Your task to perform on an android device: turn off priority inbox in the gmail app Image 0: 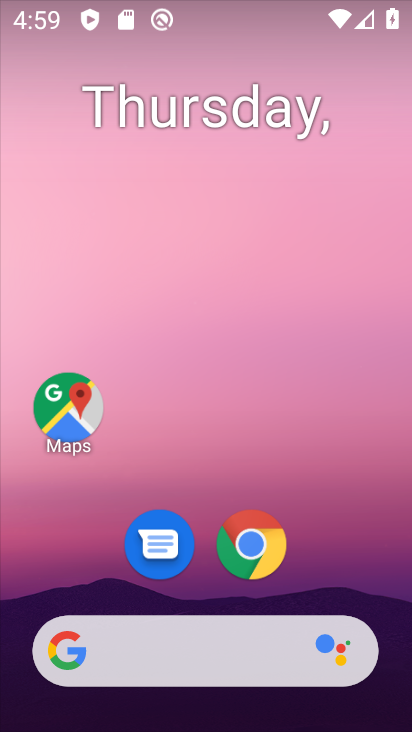
Step 0: drag from (342, 493) to (322, 78)
Your task to perform on an android device: turn off priority inbox in the gmail app Image 1: 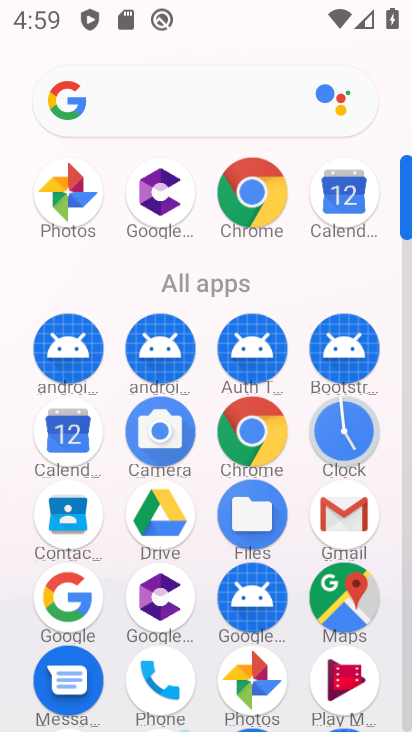
Step 1: click (345, 532)
Your task to perform on an android device: turn off priority inbox in the gmail app Image 2: 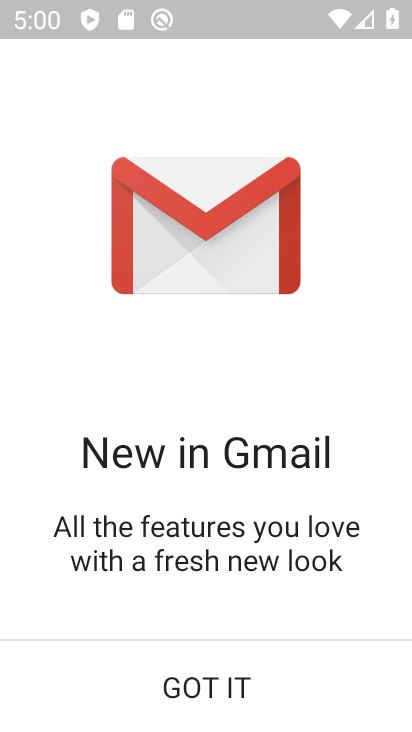
Step 2: click (230, 710)
Your task to perform on an android device: turn off priority inbox in the gmail app Image 3: 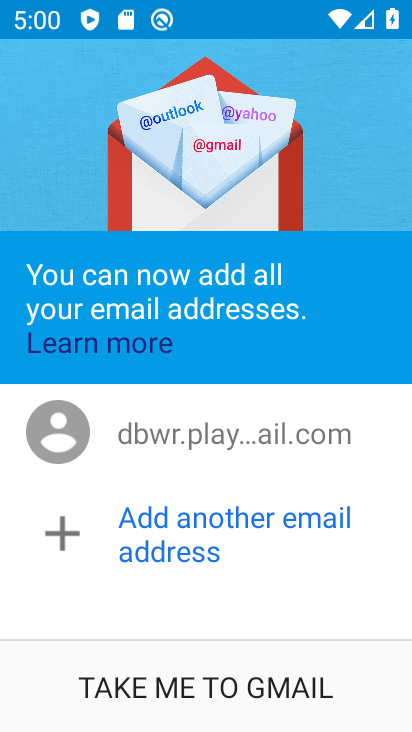
Step 3: click (224, 673)
Your task to perform on an android device: turn off priority inbox in the gmail app Image 4: 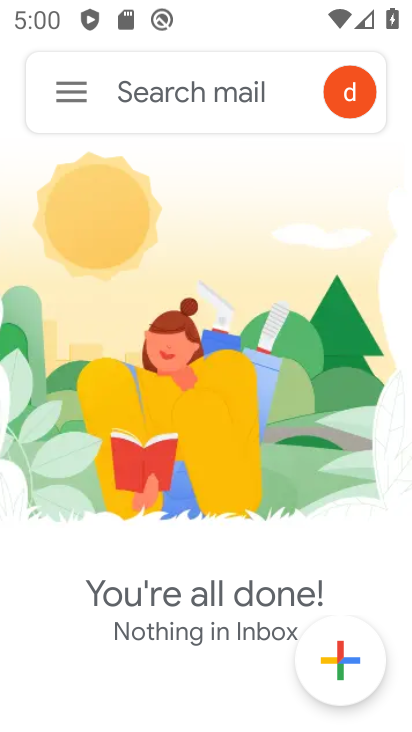
Step 4: click (61, 86)
Your task to perform on an android device: turn off priority inbox in the gmail app Image 5: 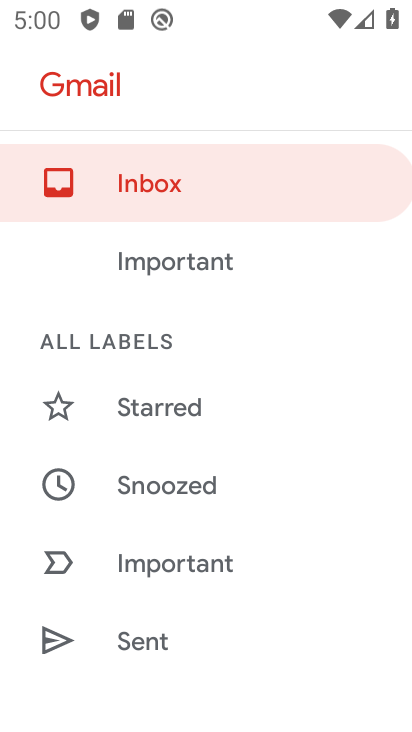
Step 5: drag from (241, 625) to (290, 28)
Your task to perform on an android device: turn off priority inbox in the gmail app Image 6: 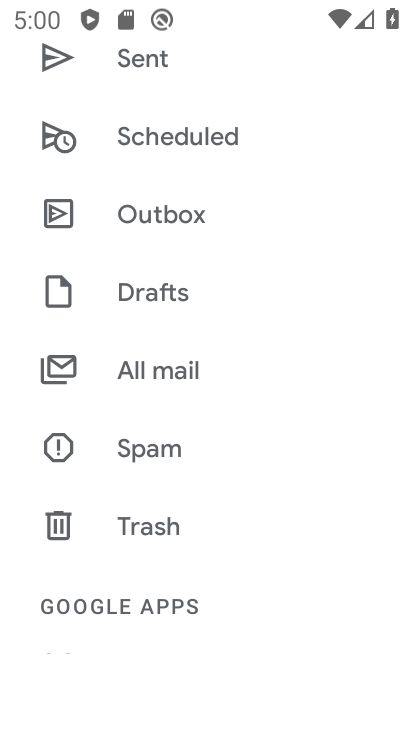
Step 6: drag from (228, 490) to (264, 32)
Your task to perform on an android device: turn off priority inbox in the gmail app Image 7: 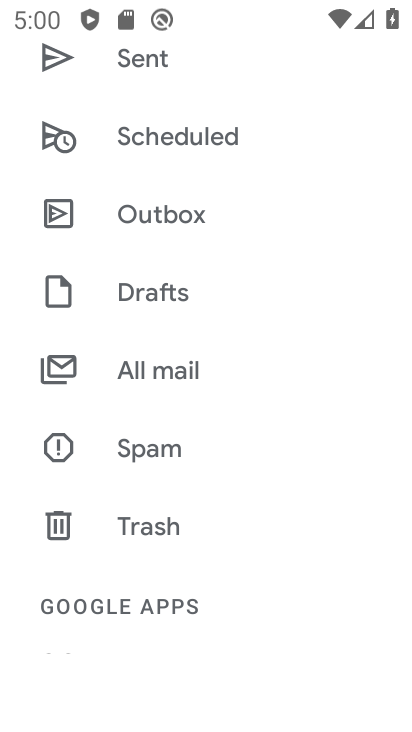
Step 7: drag from (173, 575) to (199, 102)
Your task to perform on an android device: turn off priority inbox in the gmail app Image 8: 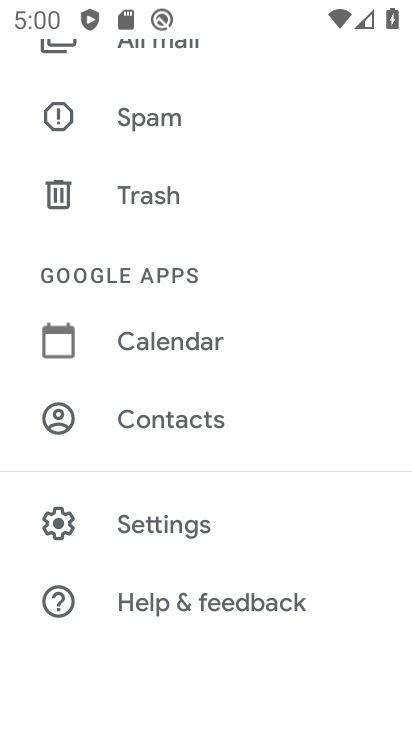
Step 8: click (152, 526)
Your task to perform on an android device: turn off priority inbox in the gmail app Image 9: 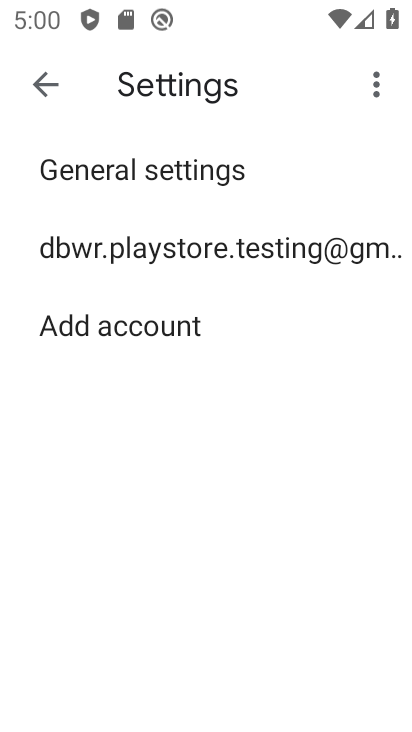
Step 9: click (199, 234)
Your task to perform on an android device: turn off priority inbox in the gmail app Image 10: 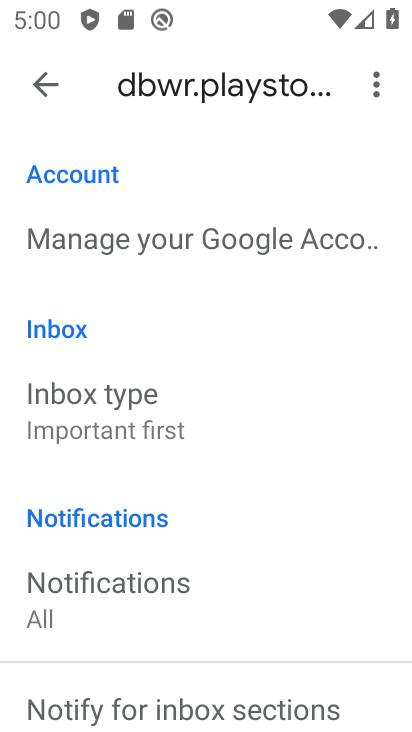
Step 10: drag from (191, 626) to (180, 139)
Your task to perform on an android device: turn off priority inbox in the gmail app Image 11: 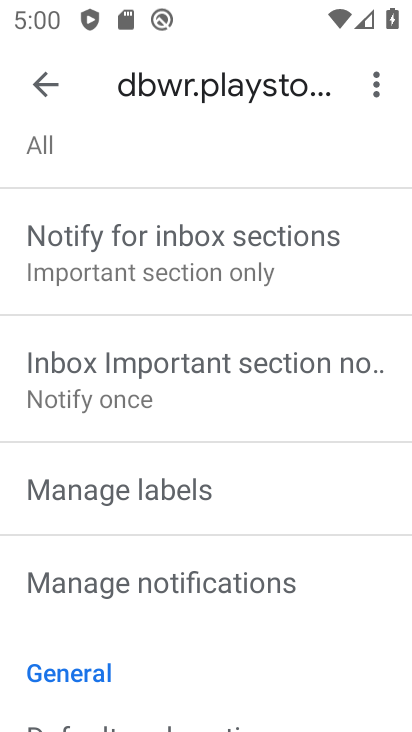
Step 11: drag from (147, 491) to (194, 149)
Your task to perform on an android device: turn off priority inbox in the gmail app Image 12: 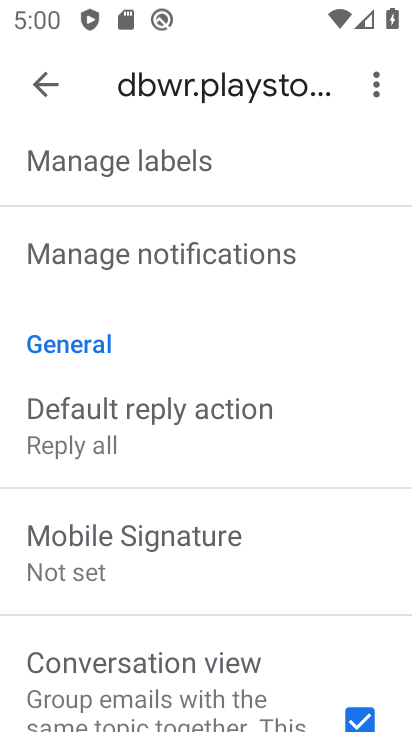
Step 12: drag from (198, 300) to (227, 686)
Your task to perform on an android device: turn off priority inbox in the gmail app Image 13: 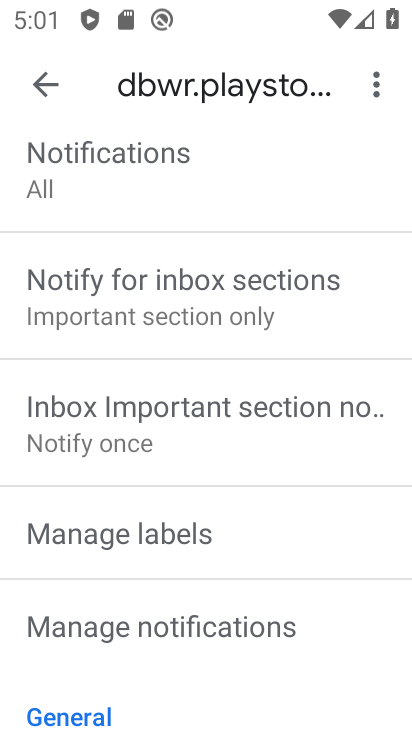
Step 13: drag from (189, 286) to (222, 609)
Your task to perform on an android device: turn off priority inbox in the gmail app Image 14: 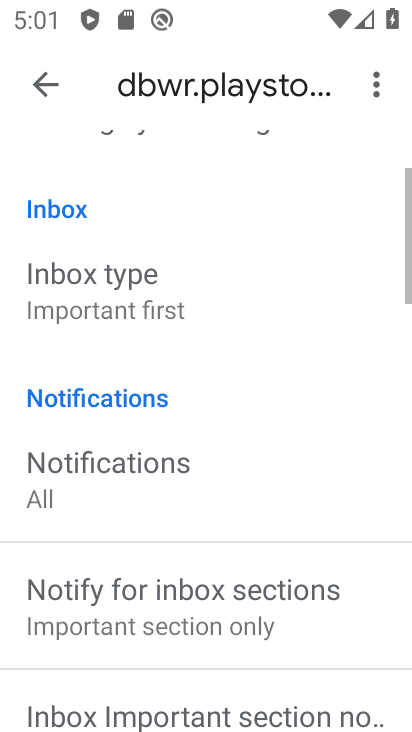
Step 14: drag from (199, 333) to (221, 624)
Your task to perform on an android device: turn off priority inbox in the gmail app Image 15: 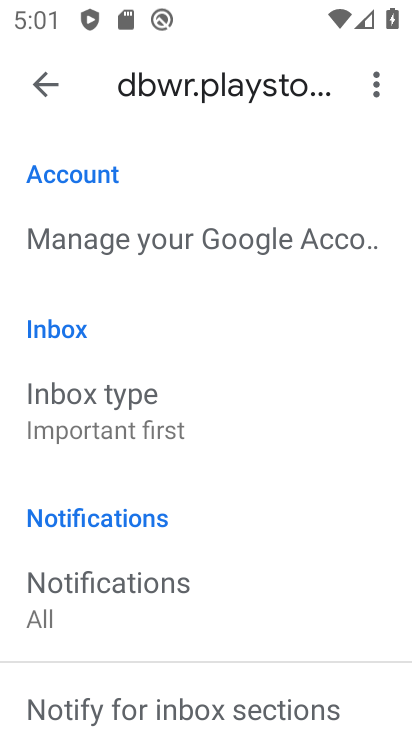
Step 15: click (132, 428)
Your task to perform on an android device: turn off priority inbox in the gmail app Image 16: 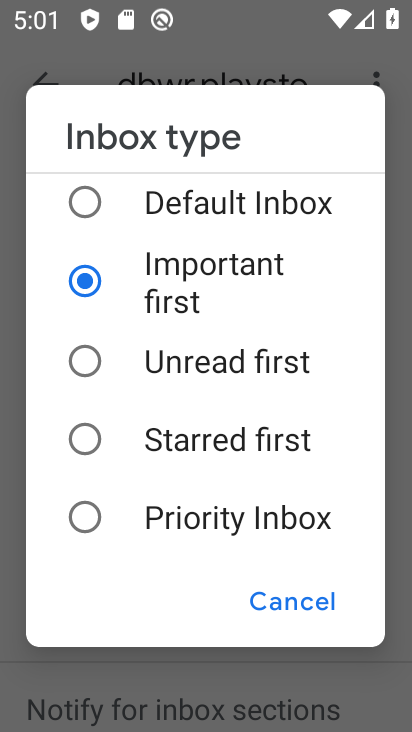
Step 16: task complete